Your task to perform on an android device: toggle sleep mode Image 0: 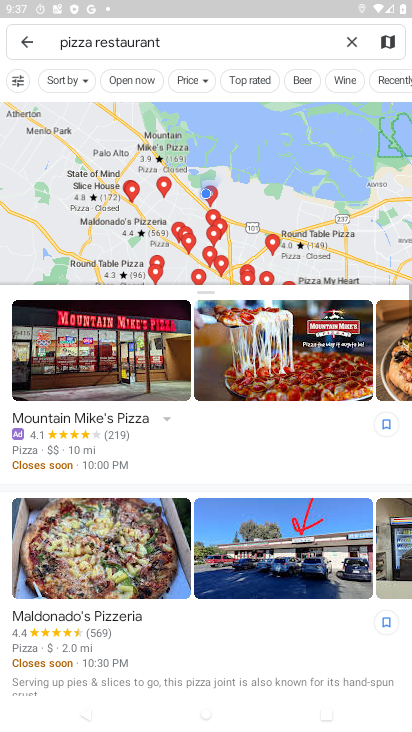
Step 0: press home button
Your task to perform on an android device: toggle sleep mode Image 1: 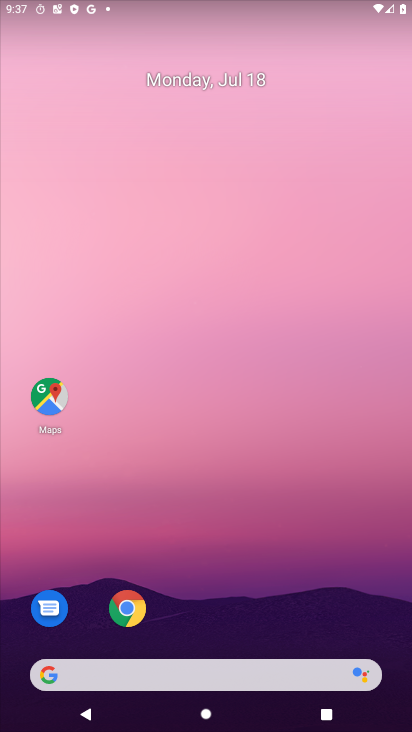
Step 1: drag from (181, 432) to (183, 136)
Your task to perform on an android device: toggle sleep mode Image 2: 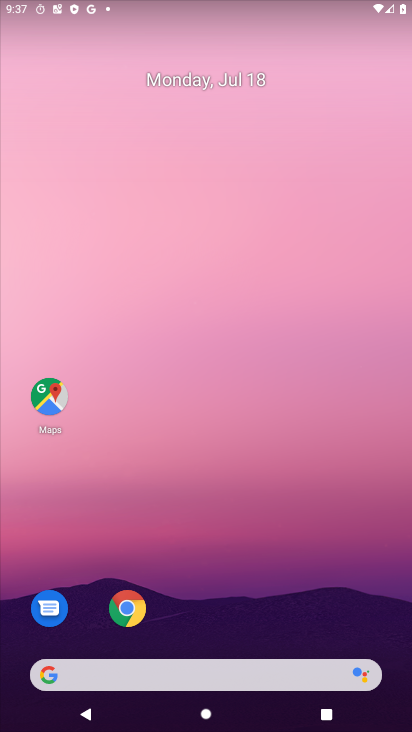
Step 2: drag from (191, 618) to (186, 233)
Your task to perform on an android device: toggle sleep mode Image 3: 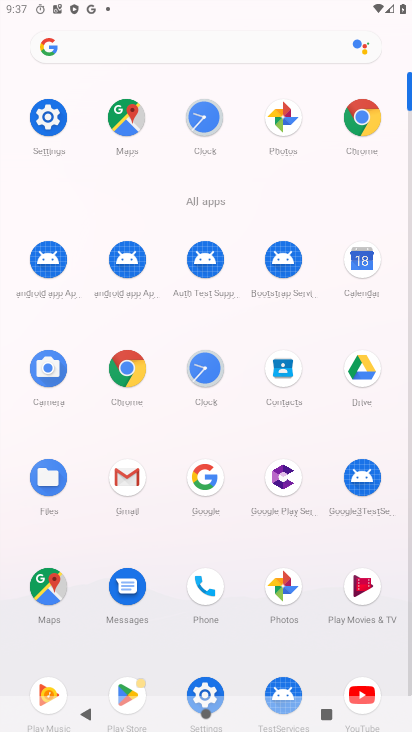
Step 3: click (51, 122)
Your task to perform on an android device: toggle sleep mode Image 4: 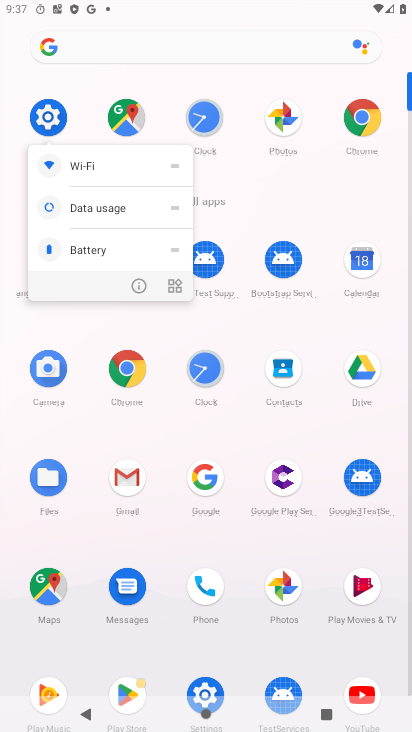
Step 4: click (41, 111)
Your task to perform on an android device: toggle sleep mode Image 5: 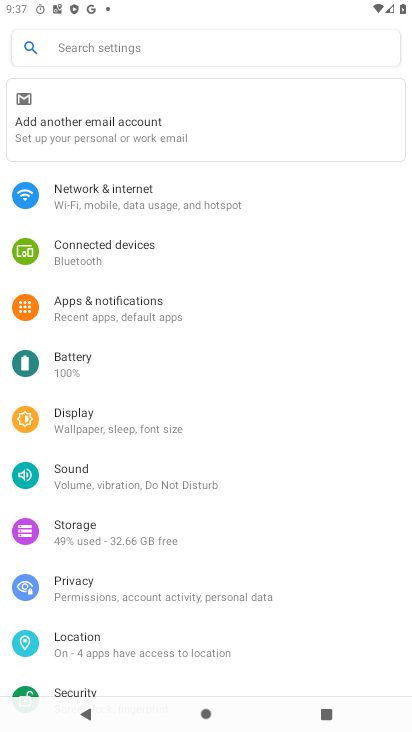
Step 5: task complete